Your task to perform on an android device: Go to Amazon Image 0: 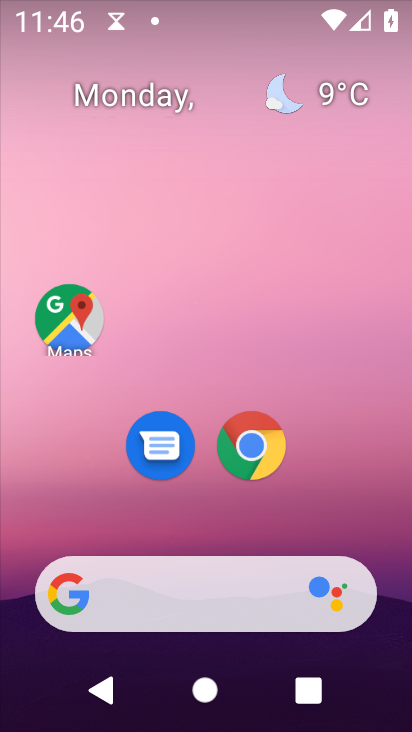
Step 0: drag from (222, 524) to (257, 7)
Your task to perform on an android device: Go to Amazon Image 1: 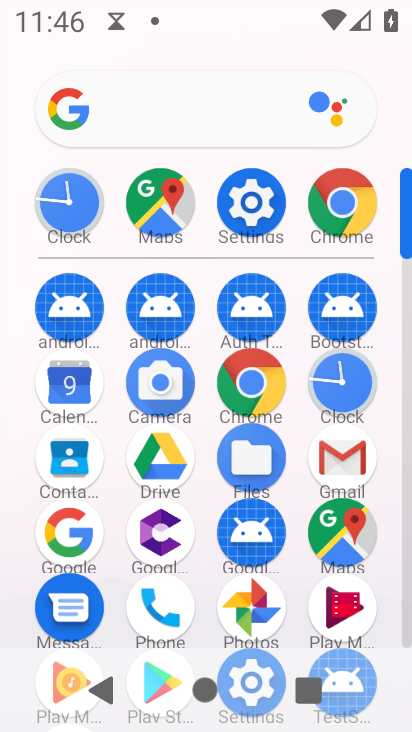
Step 1: click (268, 382)
Your task to perform on an android device: Go to Amazon Image 2: 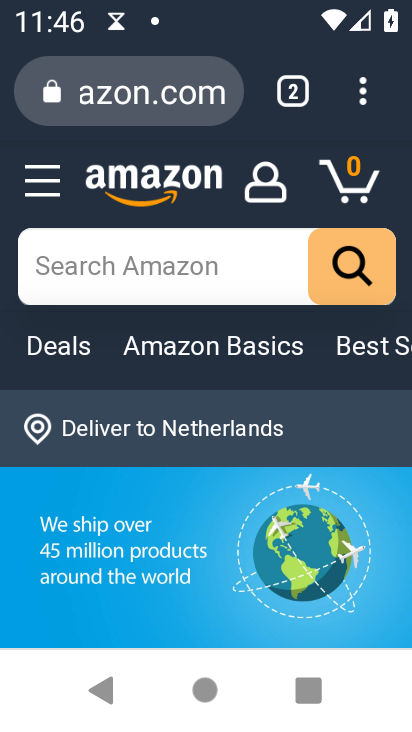
Step 2: task complete